Your task to perform on an android device: Open Maps and search for coffee Image 0: 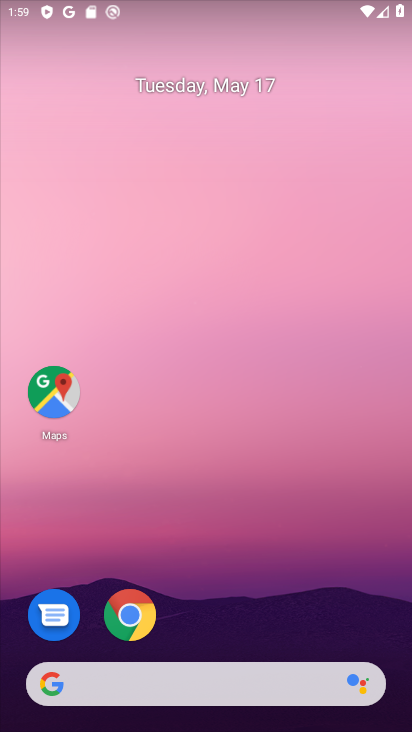
Step 0: press home button
Your task to perform on an android device: Open Maps and search for coffee Image 1: 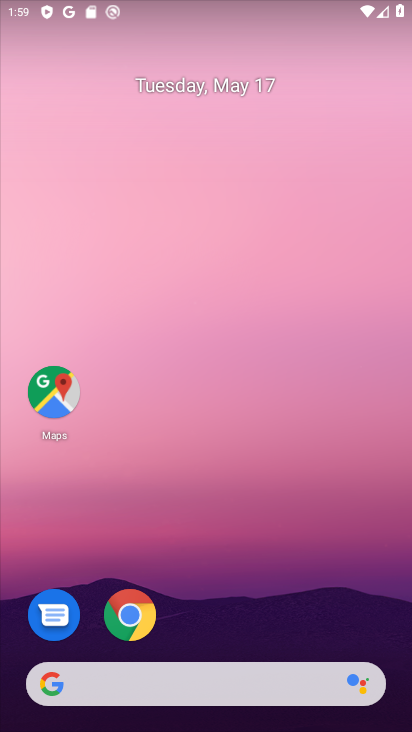
Step 1: click (45, 406)
Your task to perform on an android device: Open Maps and search for coffee Image 2: 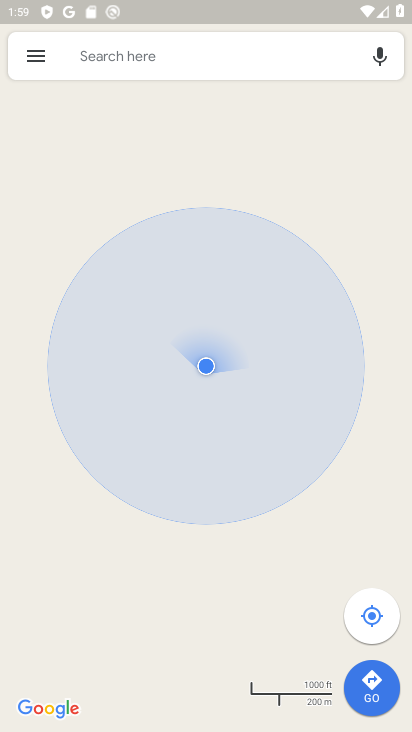
Step 2: click (31, 65)
Your task to perform on an android device: Open Maps and search for coffee Image 3: 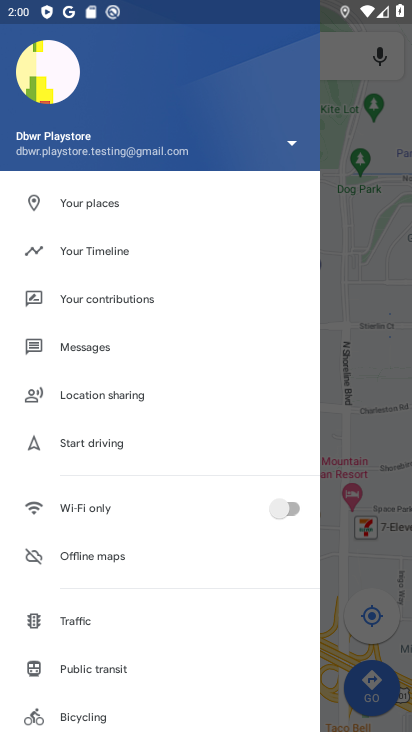
Step 3: click (390, 412)
Your task to perform on an android device: Open Maps and search for coffee Image 4: 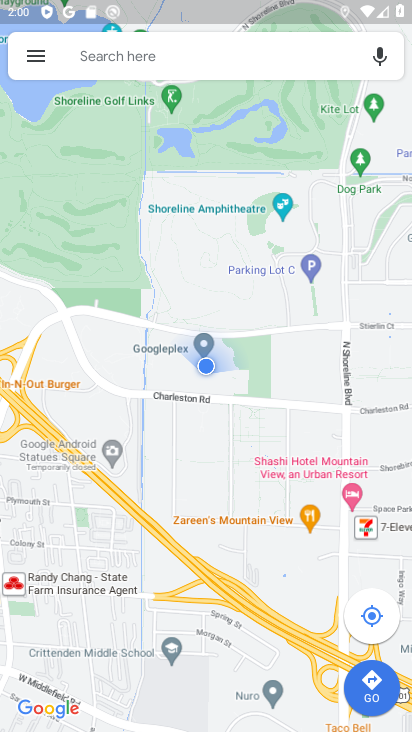
Step 4: click (244, 72)
Your task to perform on an android device: Open Maps and search for coffee Image 5: 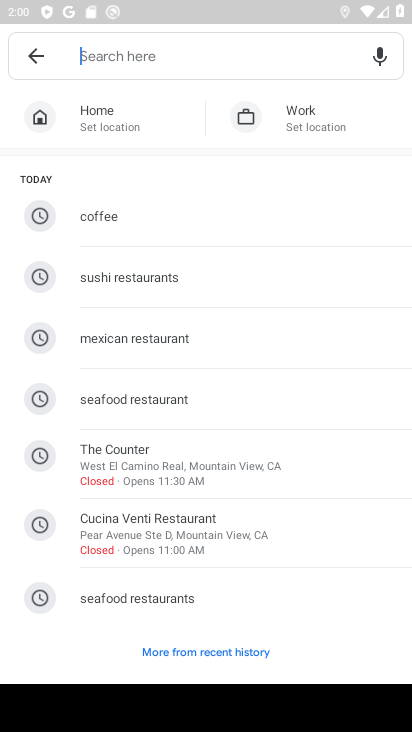
Step 5: click (166, 55)
Your task to perform on an android device: Open Maps and search for coffee Image 6: 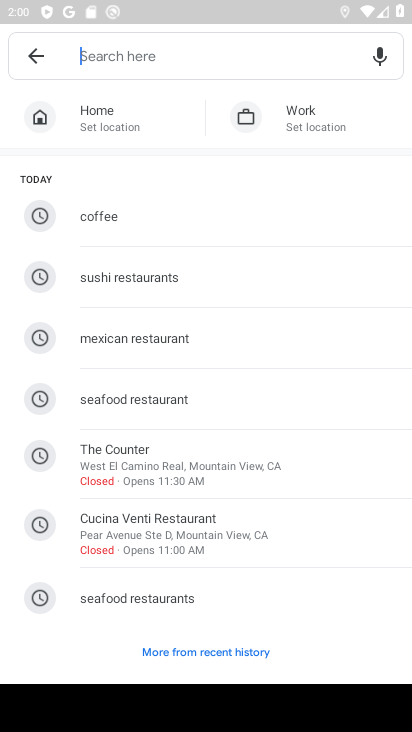
Step 6: click (166, 55)
Your task to perform on an android device: Open Maps and search for coffee Image 7: 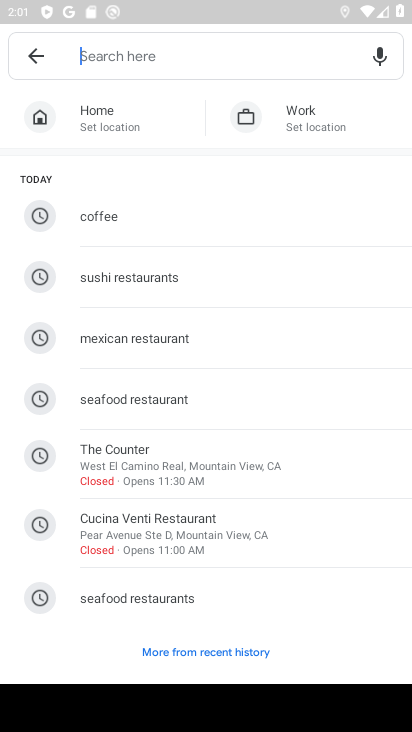
Step 7: type "coffee"
Your task to perform on an android device: Open Maps and search for coffee Image 8: 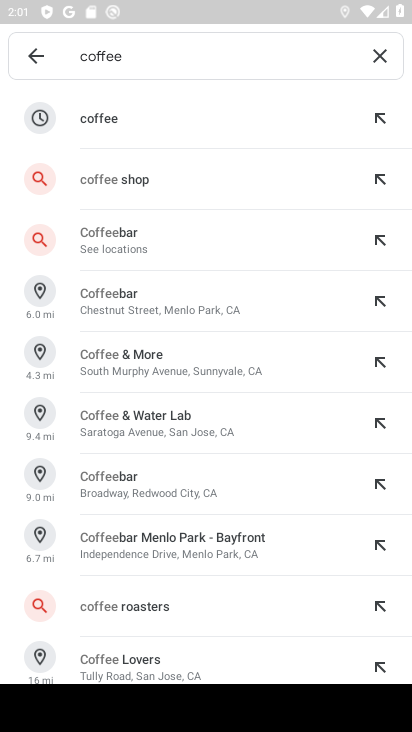
Step 8: click (152, 106)
Your task to perform on an android device: Open Maps and search for coffee Image 9: 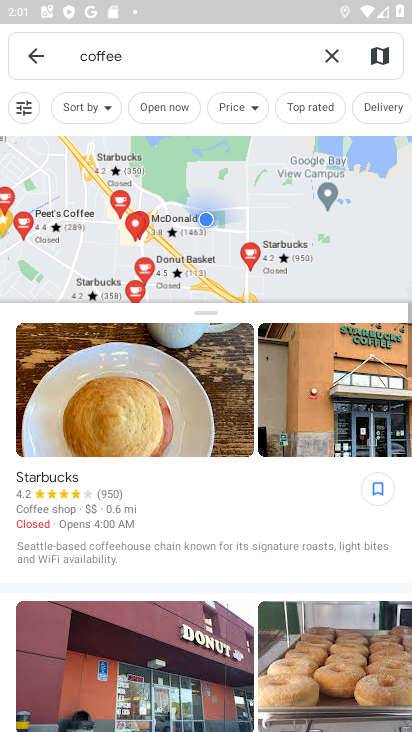
Step 9: task complete